Your task to perform on an android device: turn pop-ups on in chrome Image 0: 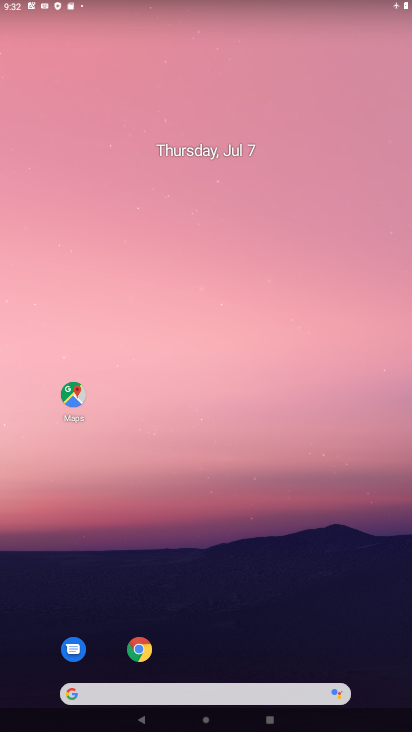
Step 0: click (140, 650)
Your task to perform on an android device: turn pop-ups on in chrome Image 1: 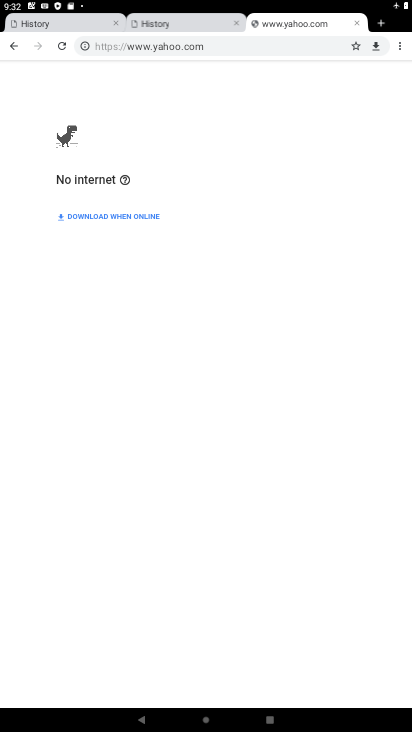
Step 1: click (400, 47)
Your task to perform on an android device: turn pop-ups on in chrome Image 2: 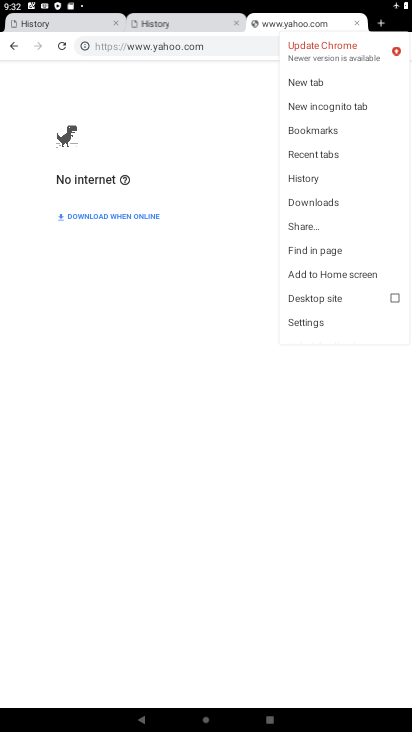
Step 2: click (308, 321)
Your task to perform on an android device: turn pop-ups on in chrome Image 3: 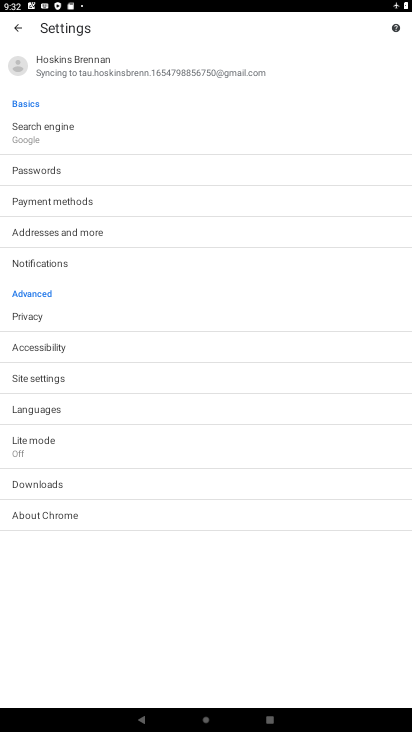
Step 3: click (39, 376)
Your task to perform on an android device: turn pop-ups on in chrome Image 4: 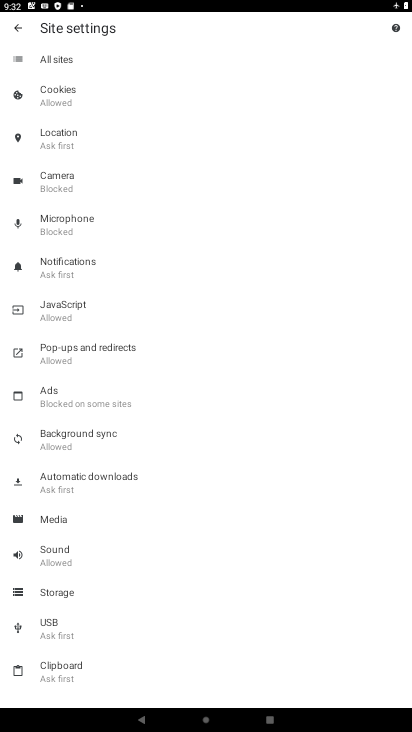
Step 4: click (59, 342)
Your task to perform on an android device: turn pop-ups on in chrome Image 5: 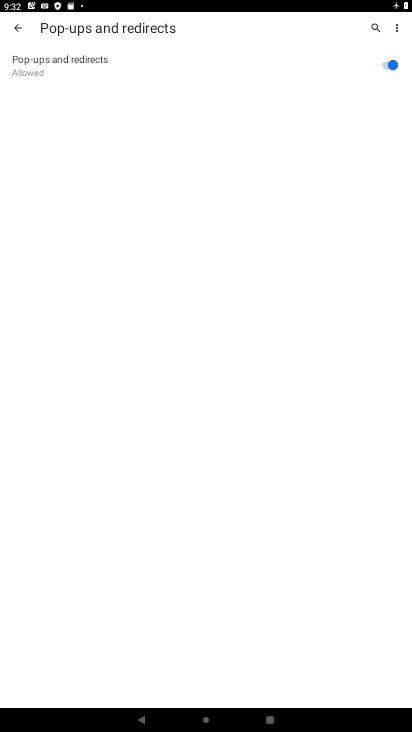
Step 5: task complete